Your task to perform on an android device: Go to network settings Image 0: 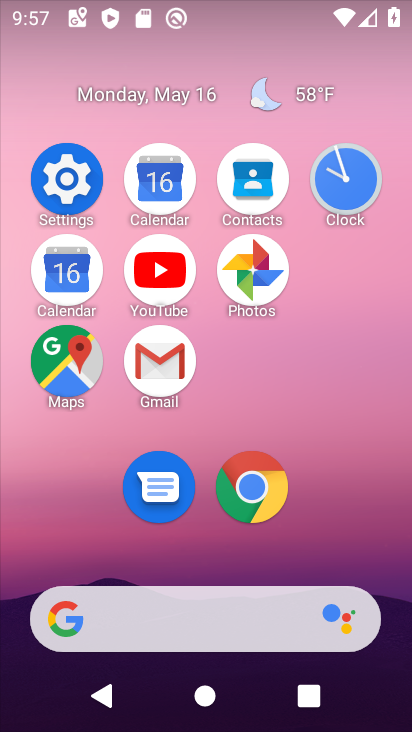
Step 0: click (79, 180)
Your task to perform on an android device: Go to network settings Image 1: 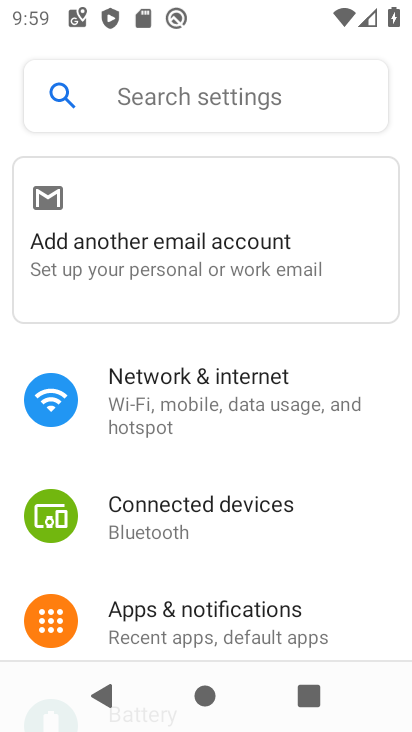
Step 1: click (161, 411)
Your task to perform on an android device: Go to network settings Image 2: 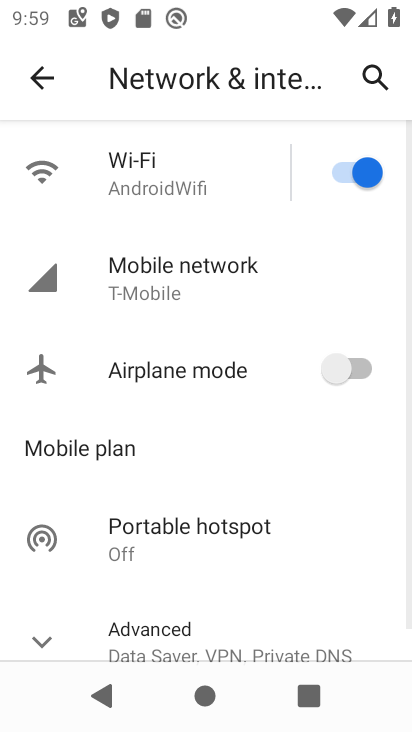
Step 2: click (175, 296)
Your task to perform on an android device: Go to network settings Image 3: 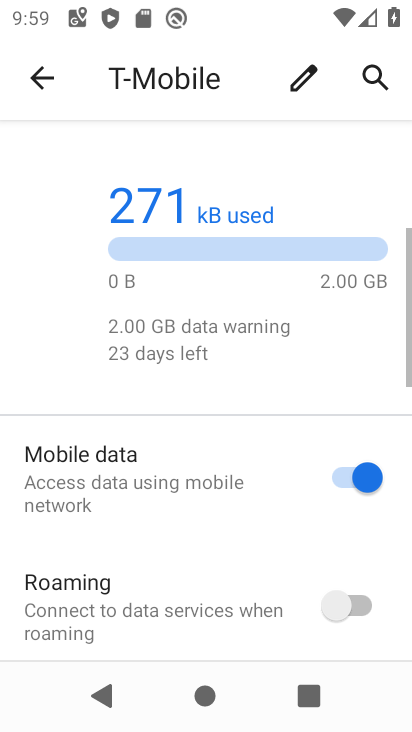
Step 3: task complete